Your task to perform on an android device: When is my next meeting? Image 0: 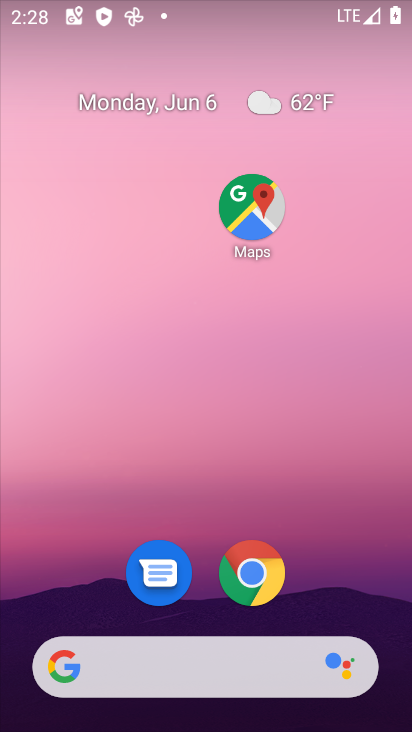
Step 0: drag from (202, 512) to (184, 1)
Your task to perform on an android device: When is my next meeting? Image 1: 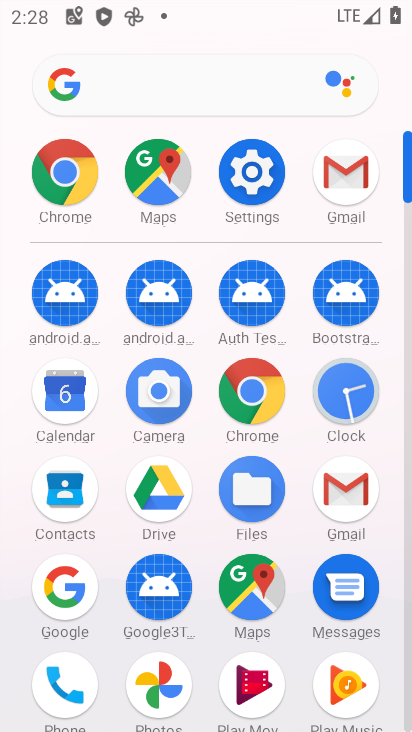
Step 1: click (78, 411)
Your task to perform on an android device: When is my next meeting? Image 2: 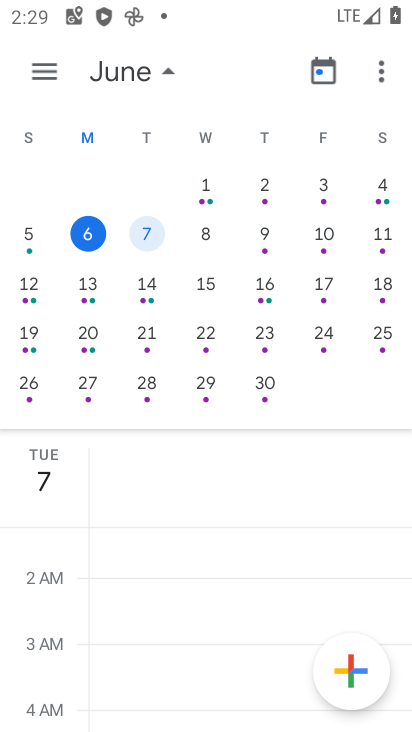
Step 2: task complete